Your task to perform on an android device: Search for sushi restaurants on Maps Image 0: 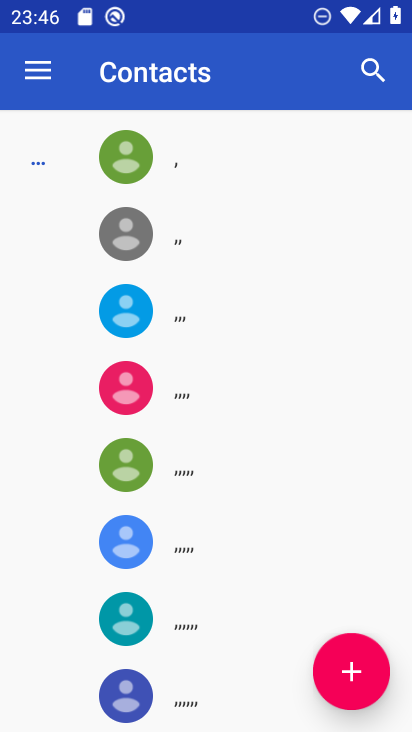
Step 0: press home button
Your task to perform on an android device: Search for sushi restaurants on Maps Image 1: 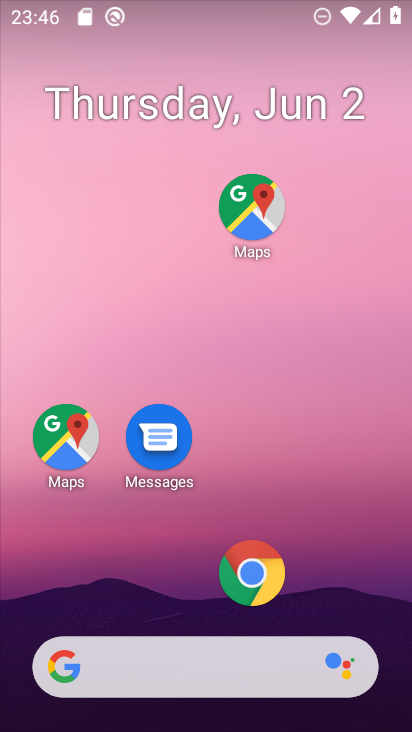
Step 1: type ""
Your task to perform on an android device: Search for sushi restaurants on Maps Image 2: 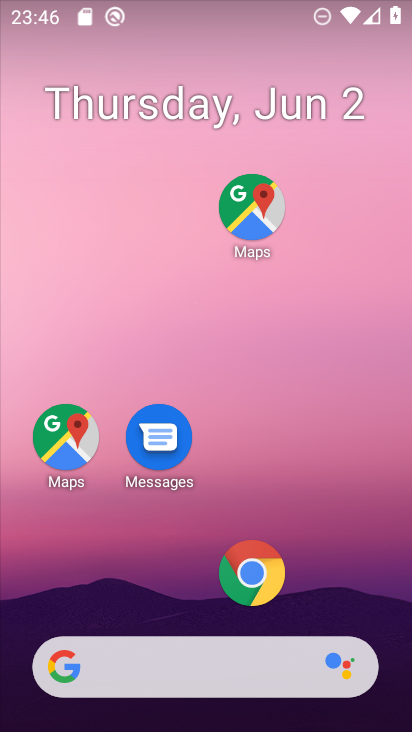
Step 2: click (140, 427)
Your task to perform on an android device: Search for sushi restaurants on Maps Image 3: 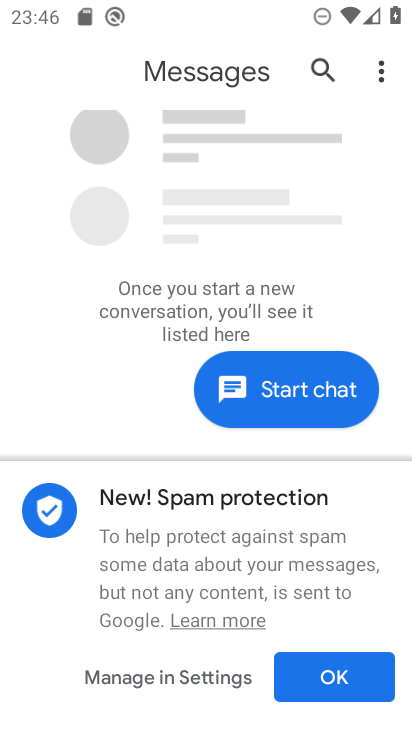
Step 3: press home button
Your task to perform on an android device: Search for sushi restaurants on Maps Image 4: 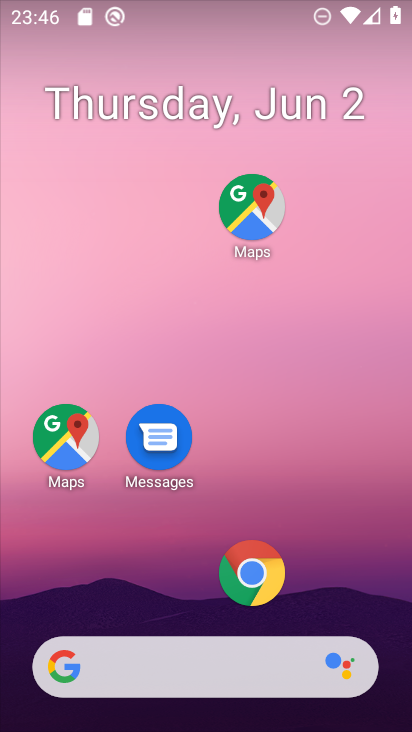
Step 4: click (260, 205)
Your task to perform on an android device: Search for sushi restaurants on Maps Image 5: 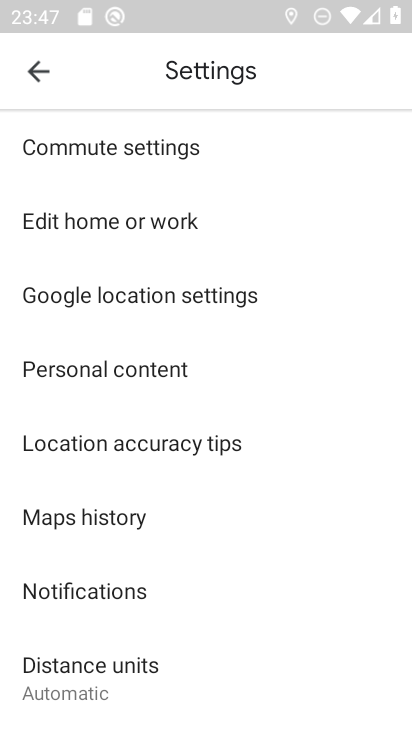
Step 5: press home button
Your task to perform on an android device: Search for sushi restaurants on Maps Image 6: 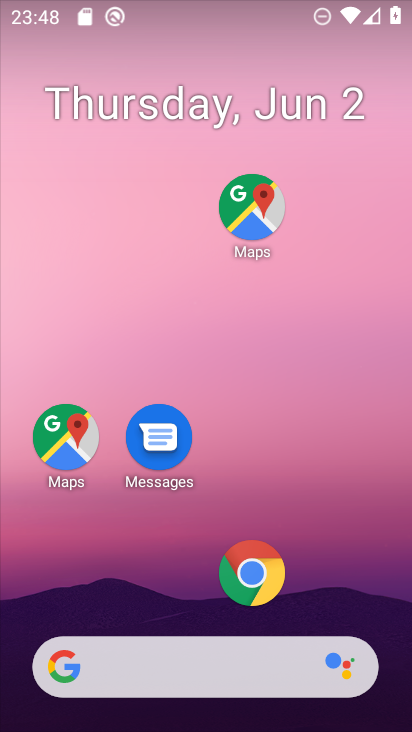
Step 6: click (233, 222)
Your task to perform on an android device: Search for sushi restaurants on Maps Image 7: 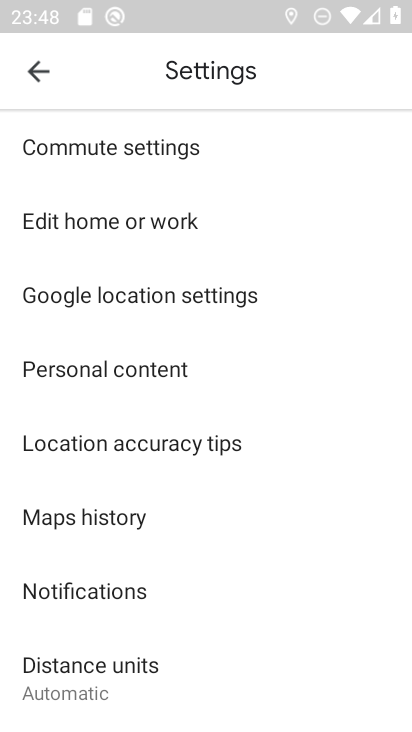
Step 7: click (47, 68)
Your task to perform on an android device: Search for sushi restaurants on Maps Image 8: 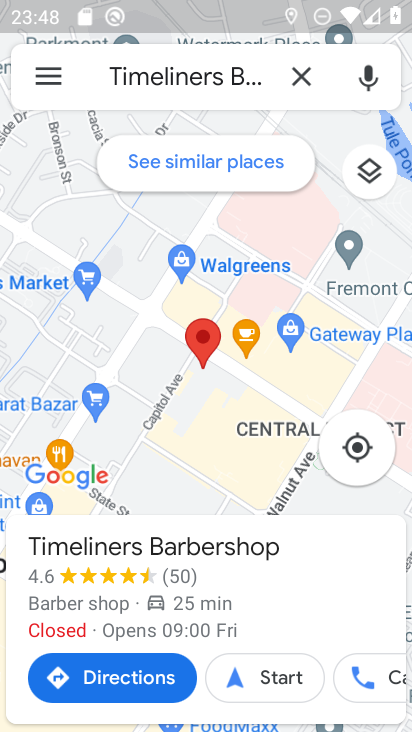
Step 8: click (307, 76)
Your task to perform on an android device: Search for sushi restaurants on Maps Image 9: 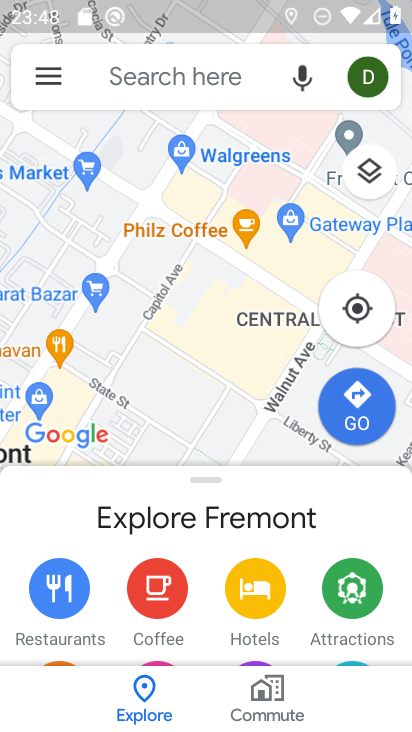
Step 9: click (210, 76)
Your task to perform on an android device: Search for sushi restaurants on Maps Image 10: 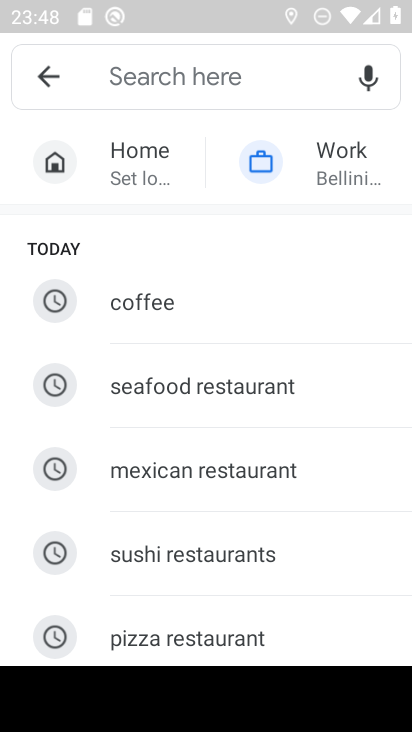
Step 10: click (199, 551)
Your task to perform on an android device: Search for sushi restaurants on Maps Image 11: 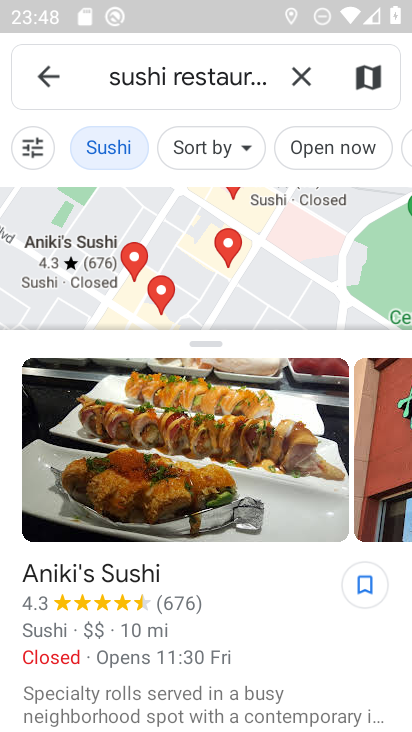
Step 11: task complete